Your task to perform on an android device: allow notifications from all sites in the chrome app Image 0: 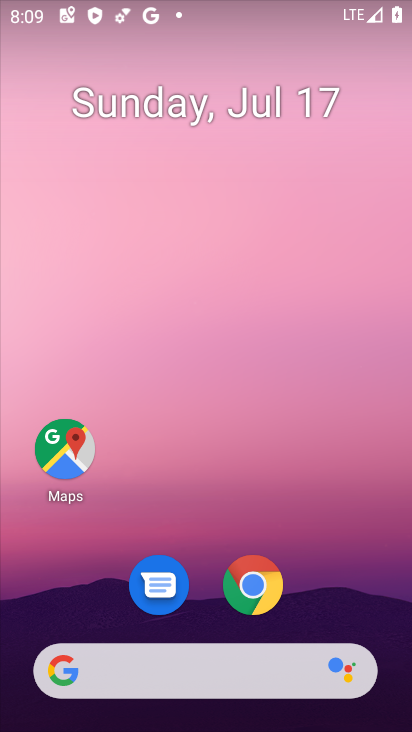
Step 0: click (272, 586)
Your task to perform on an android device: allow notifications from all sites in the chrome app Image 1: 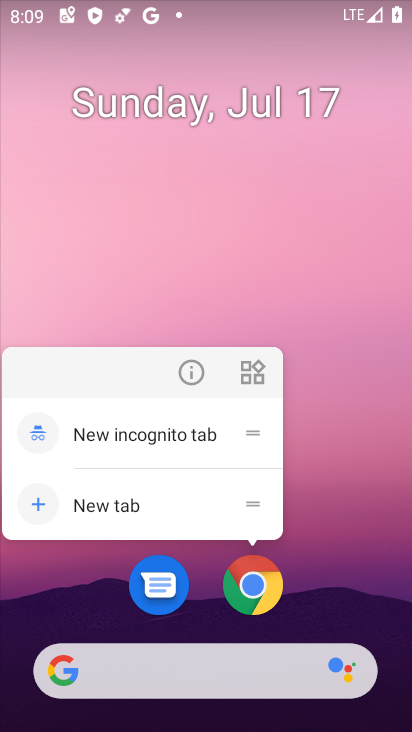
Step 1: click (273, 589)
Your task to perform on an android device: allow notifications from all sites in the chrome app Image 2: 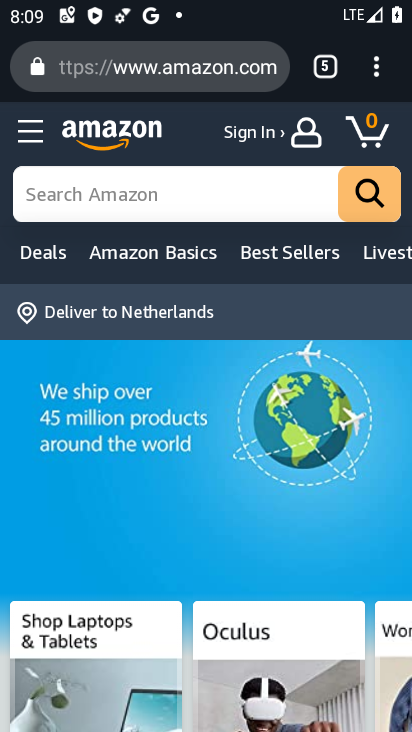
Step 2: click (377, 72)
Your task to perform on an android device: allow notifications from all sites in the chrome app Image 3: 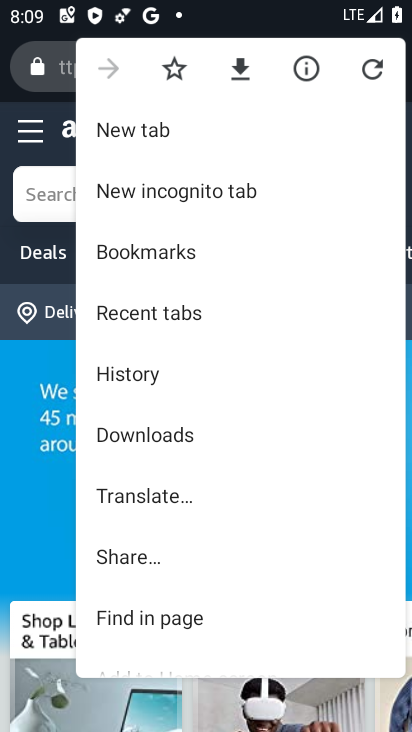
Step 3: drag from (277, 505) to (238, 174)
Your task to perform on an android device: allow notifications from all sites in the chrome app Image 4: 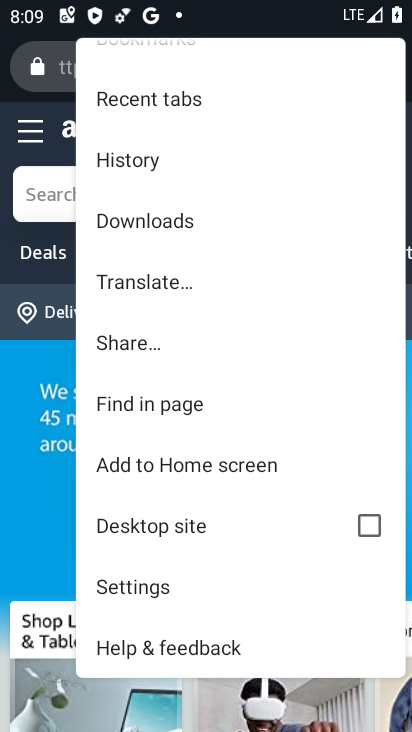
Step 4: click (147, 583)
Your task to perform on an android device: allow notifications from all sites in the chrome app Image 5: 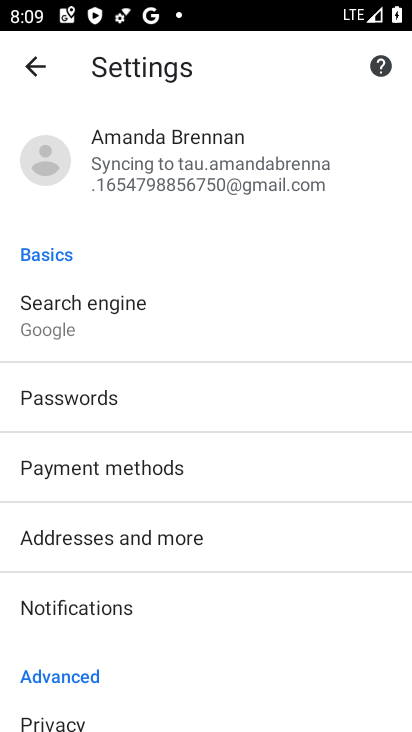
Step 5: click (119, 611)
Your task to perform on an android device: allow notifications from all sites in the chrome app Image 6: 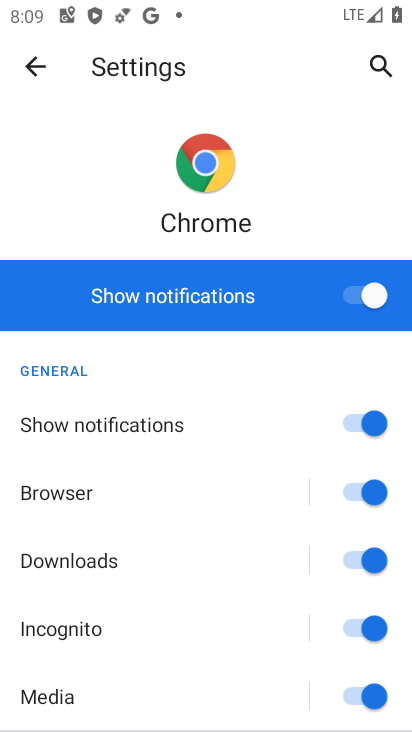
Step 6: drag from (249, 607) to (194, 137)
Your task to perform on an android device: allow notifications from all sites in the chrome app Image 7: 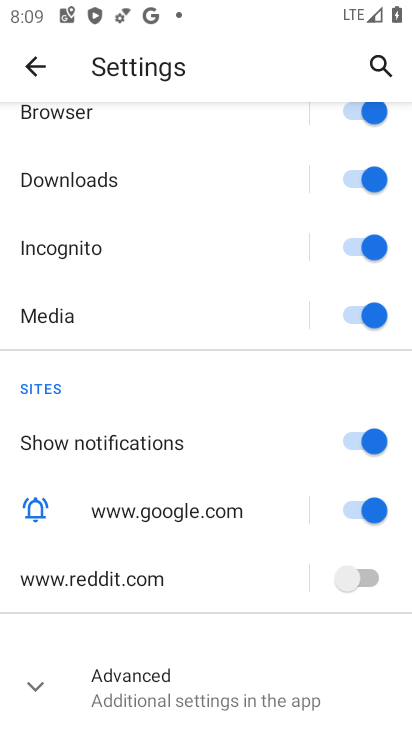
Step 7: click (370, 578)
Your task to perform on an android device: allow notifications from all sites in the chrome app Image 8: 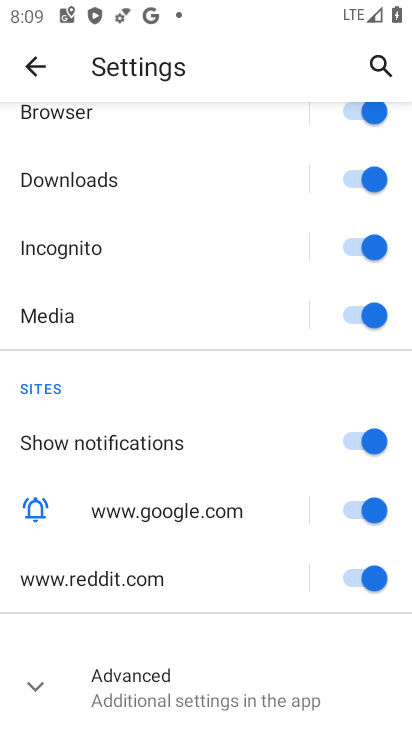
Step 8: task complete